Your task to perform on an android device: Show the shopping cart on amazon.com. Search for "bose soundsport free" on amazon.com, select the first entry, and add it to the cart. Image 0: 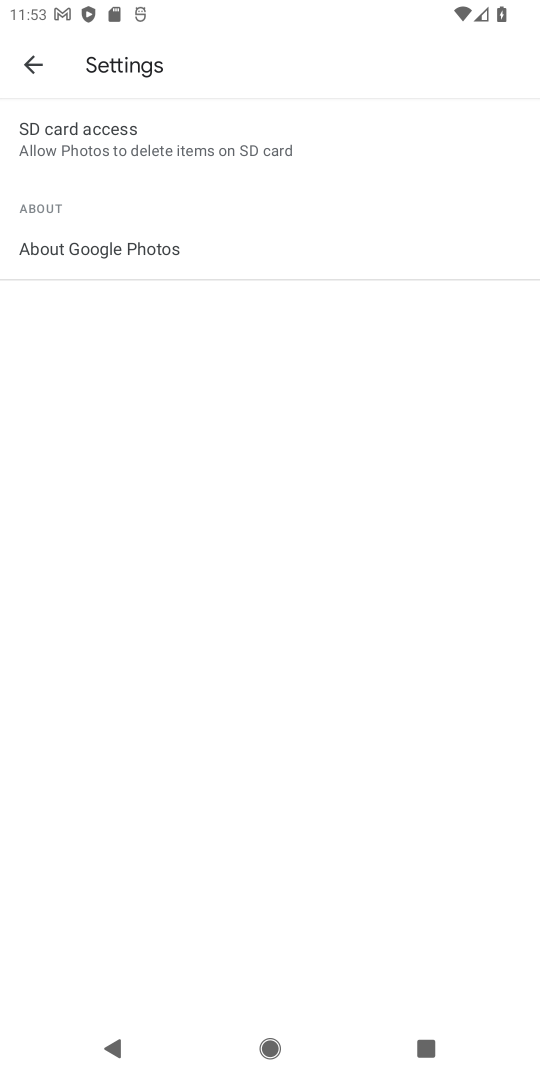
Step 0: press home button
Your task to perform on an android device: Show the shopping cart on amazon.com. Search for "bose soundsport free" on amazon.com, select the first entry, and add it to the cart. Image 1: 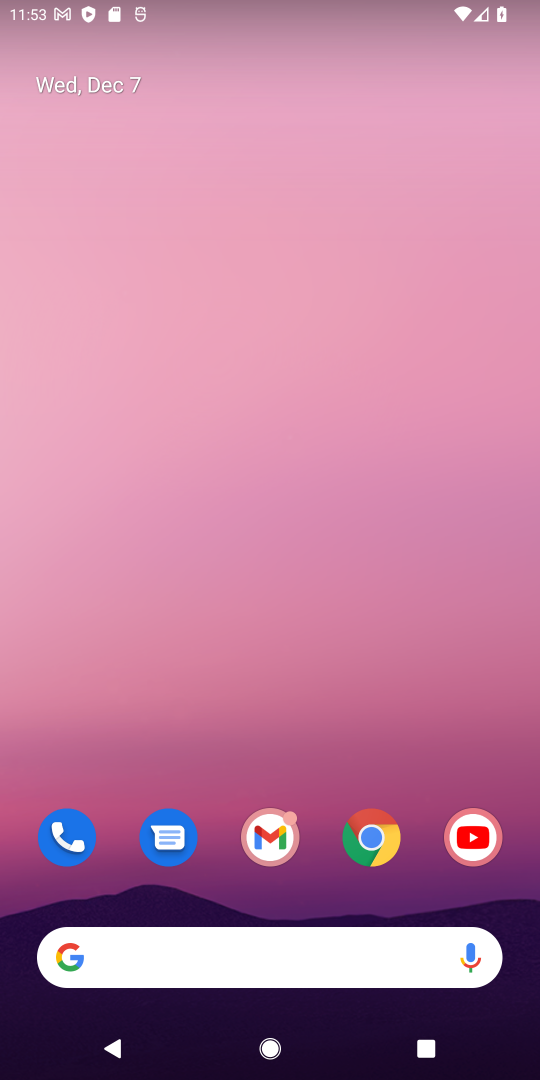
Step 1: click (375, 846)
Your task to perform on an android device: Show the shopping cart on amazon.com. Search for "bose soundsport free" on amazon.com, select the first entry, and add it to the cart. Image 2: 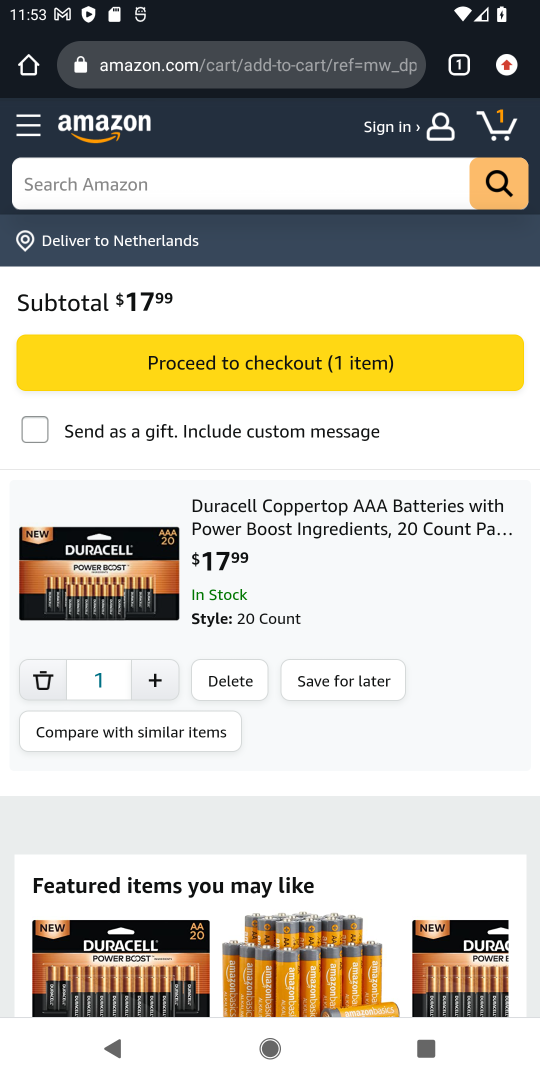
Step 2: click (175, 74)
Your task to perform on an android device: Show the shopping cart on amazon.com. Search for "bose soundsport free" on amazon.com, select the first entry, and add it to the cart. Image 3: 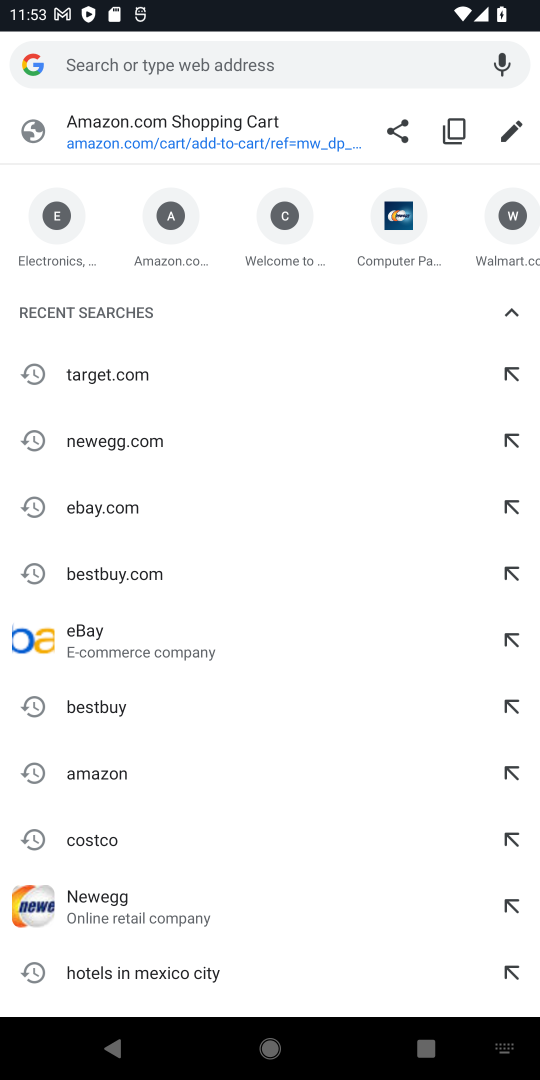
Step 3: click (175, 246)
Your task to perform on an android device: Show the shopping cart on amazon.com. Search for "bose soundsport free" on amazon.com, select the first entry, and add it to the cart. Image 4: 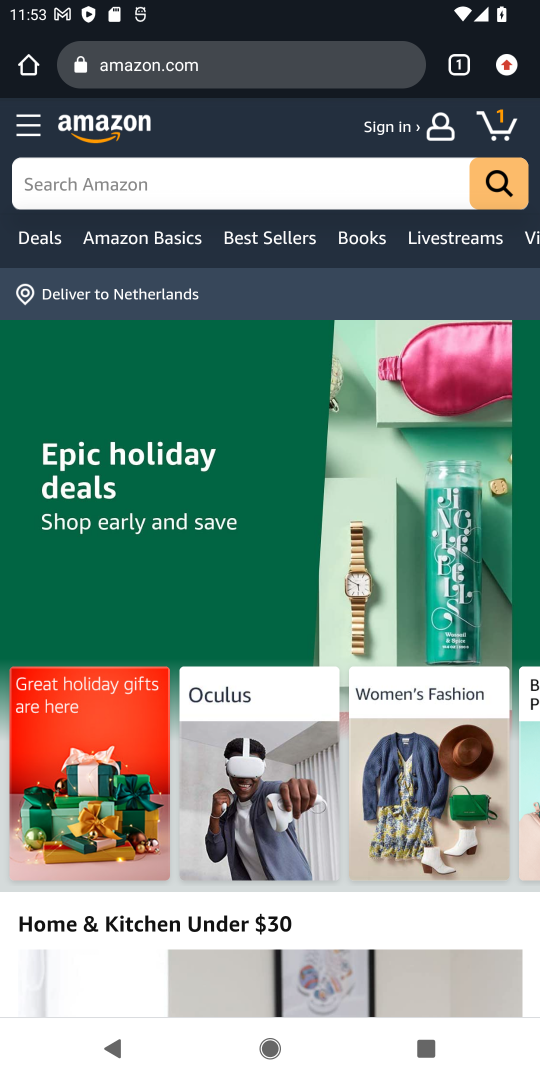
Step 4: click (501, 129)
Your task to perform on an android device: Show the shopping cart on amazon.com. Search for "bose soundsport free" on amazon.com, select the first entry, and add it to the cart. Image 5: 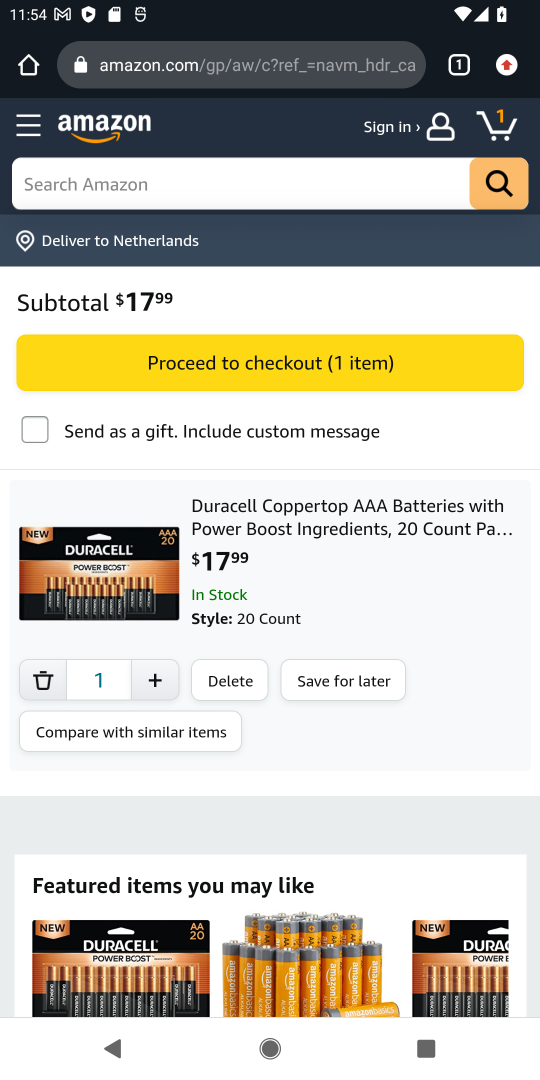
Step 5: click (217, 207)
Your task to perform on an android device: Show the shopping cart on amazon.com. Search for "bose soundsport free" on amazon.com, select the first entry, and add it to the cart. Image 6: 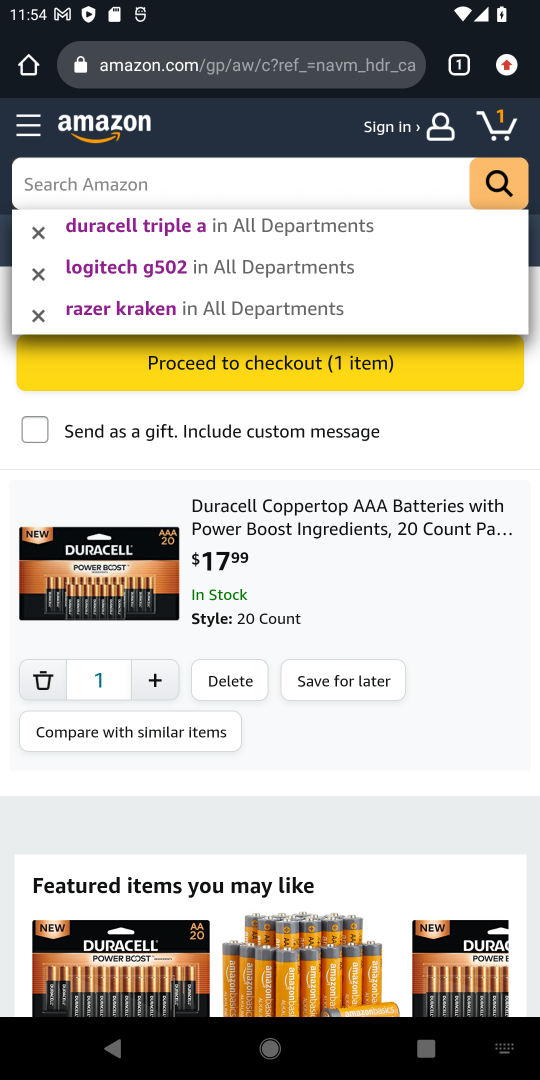
Step 6: type "bose soundsport free"
Your task to perform on an android device: Show the shopping cart on amazon.com. Search for "bose soundsport free" on amazon.com, select the first entry, and add it to the cart. Image 7: 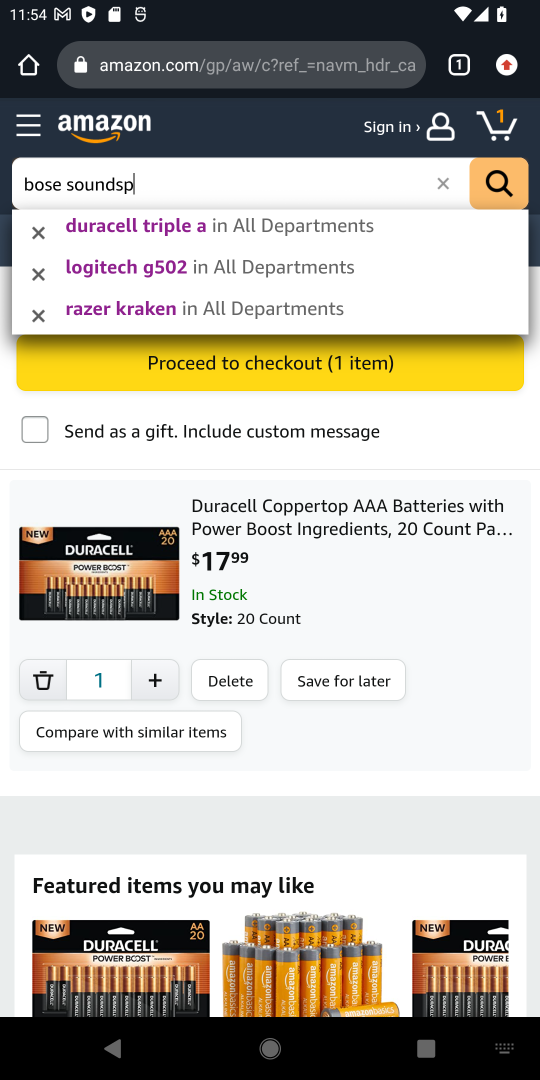
Step 7: press enter
Your task to perform on an android device: Show the shopping cart on amazon.com. Search for "bose soundsport free" on amazon.com, select the first entry, and add it to the cart. Image 8: 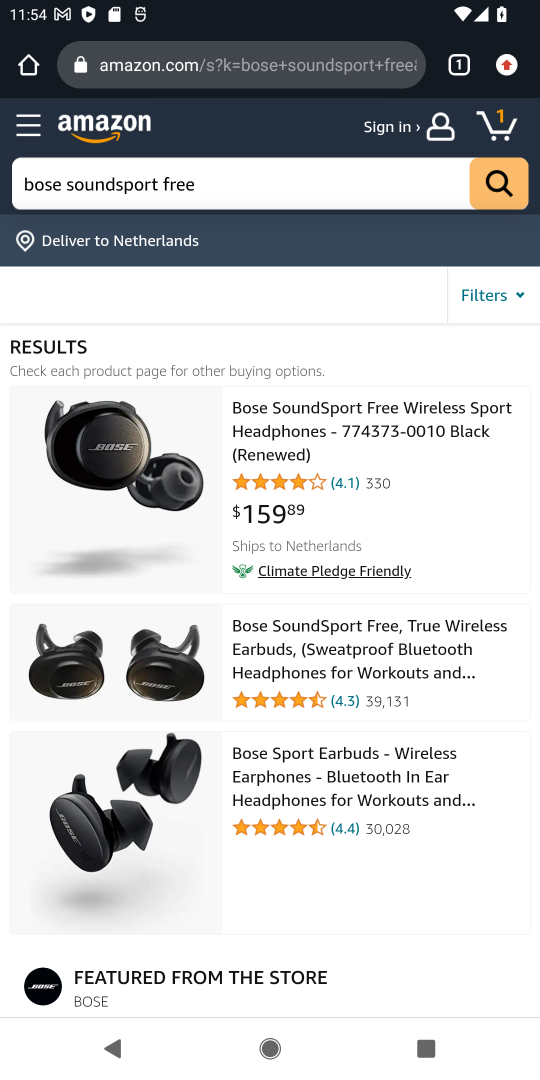
Step 8: drag from (361, 582) to (311, 1037)
Your task to perform on an android device: Show the shopping cart on amazon.com. Search for "bose soundsport free" on amazon.com, select the first entry, and add it to the cart. Image 9: 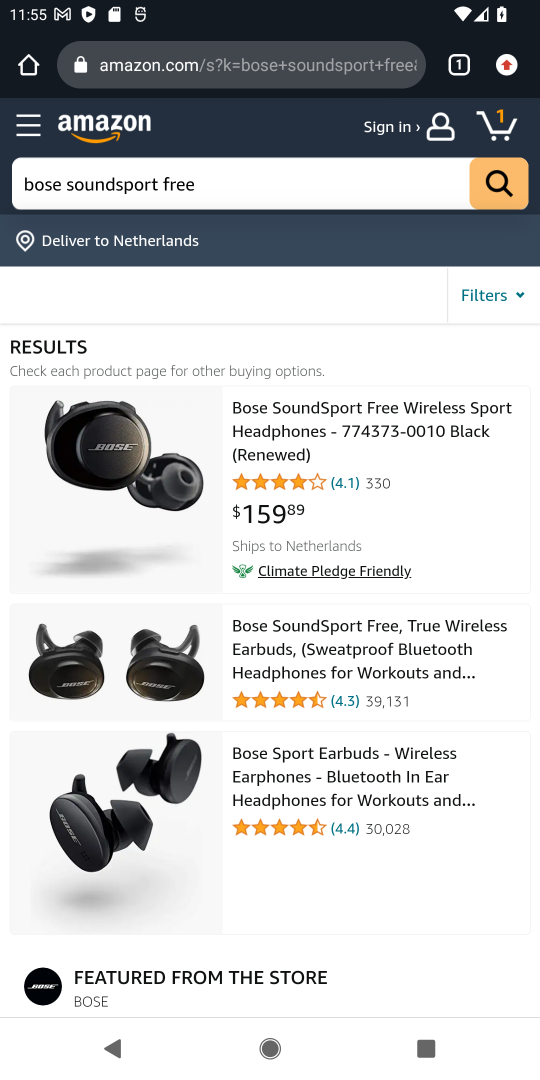
Step 9: click (292, 438)
Your task to perform on an android device: Show the shopping cart on amazon.com. Search for "bose soundsport free" on amazon.com, select the first entry, and add it to the cart. Image 10: 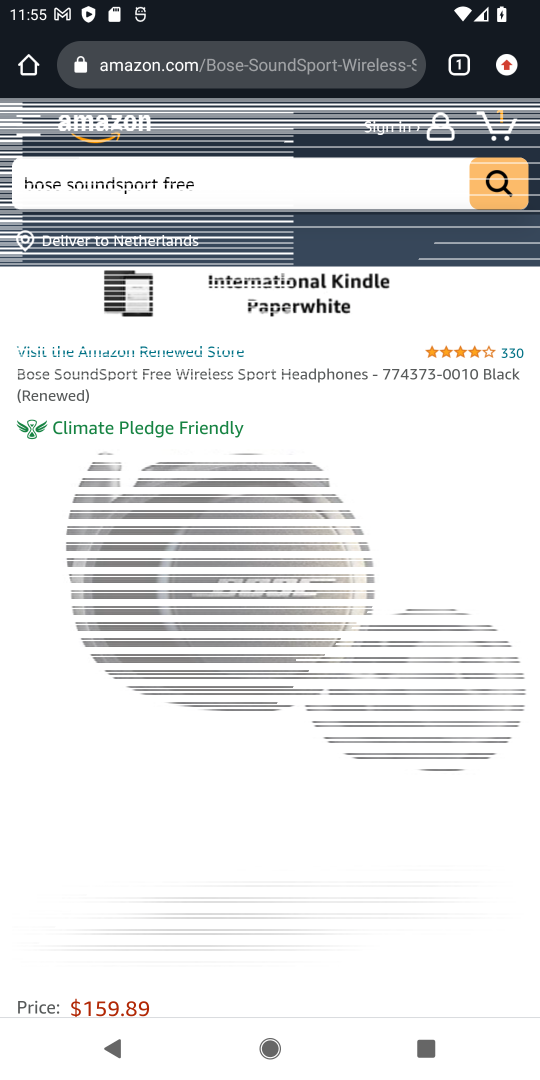
Step 10: drag from (357, 905) to (365, 583)
Your task to perform on an android device: Show the shopping cart on amazon.com. Search for "bose soundsport free" on amazon.com, select the first entry, and add it to the cart. Image 11: 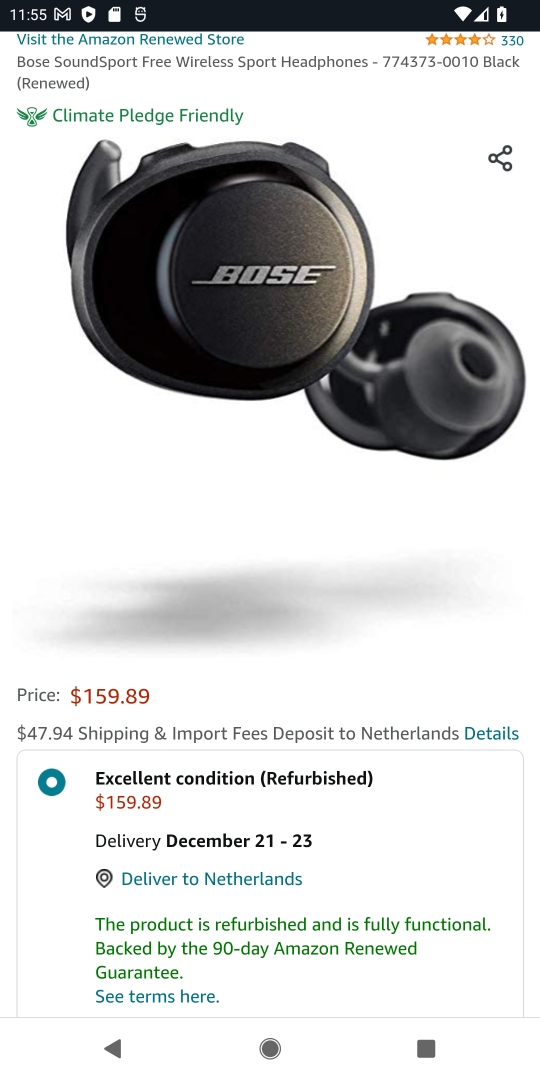
Step 11: drag from (364, 668) to (364, 613)
Your task to perform on an android device: Show the shopping cart on amazon.com. Search for "bose soundsport free" on amazon.com, select the first entry, and add it to the cart. Image 12: 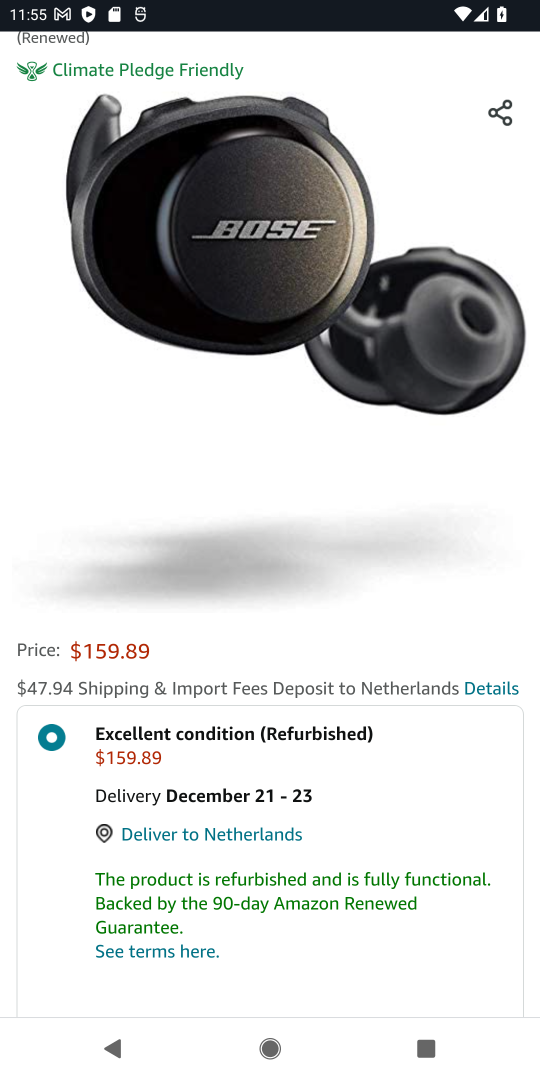
Step 12: drag from (365, 718) to (367, 526)
Your task to perform on an android device: Show the shopping cart on amazon.com. Search for "bose soundsport free" on amazon.com, select the first entry, and add it to the cart. Image 13: 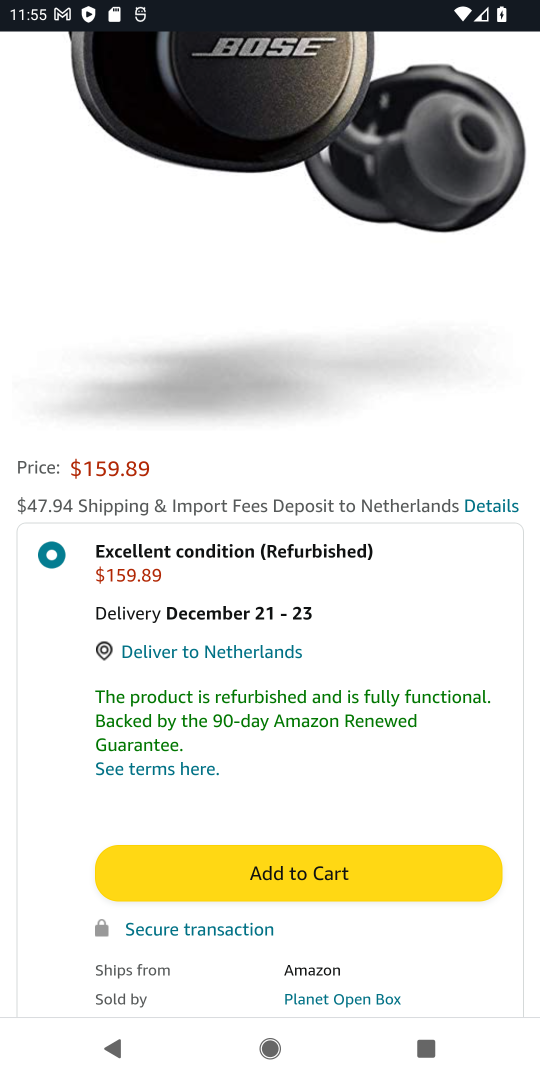
Step 13: click (311, 881)
Your task to perform on an android device: Show the shopping cart on amazon.com. Search for "bose soundsport free" on amazon.com, select the first entry, and add it to the cart. Image 14: 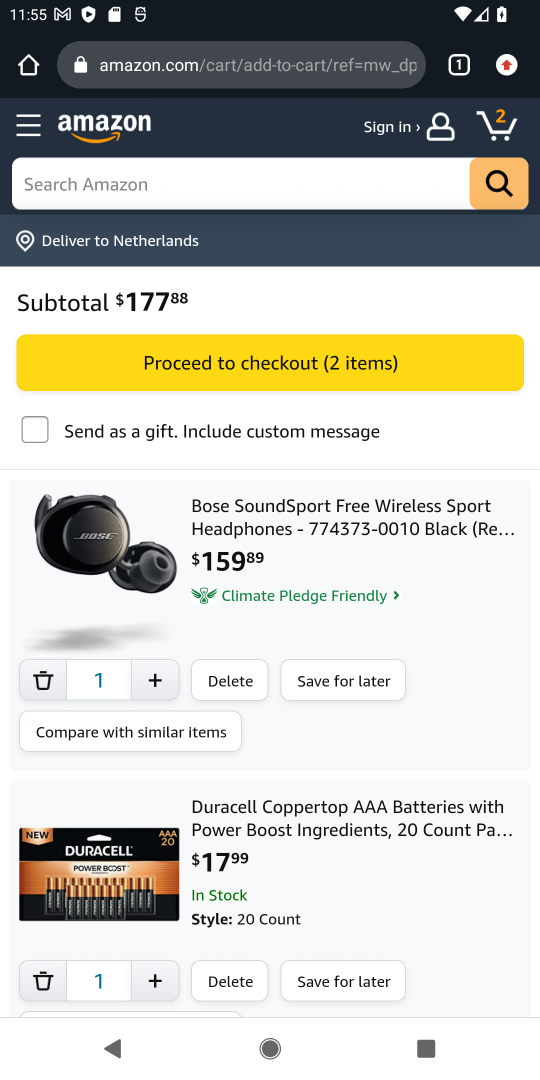
Step 14: task complete